Your task to perform on an android device: Check the news Image 0: 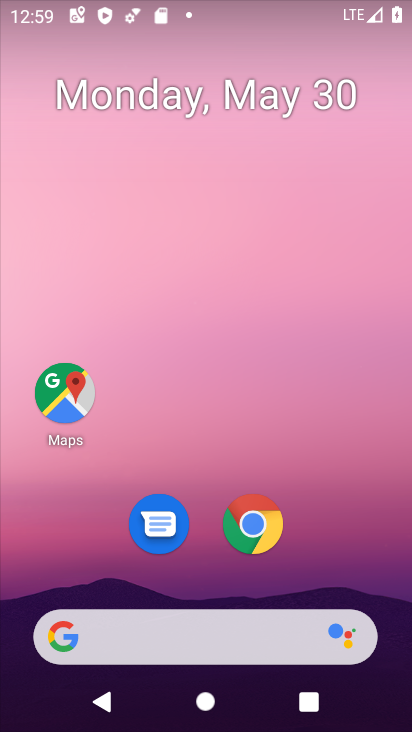
Step 0: click (227, 634)
Your task to perform on an android device: Check the news Image 1: 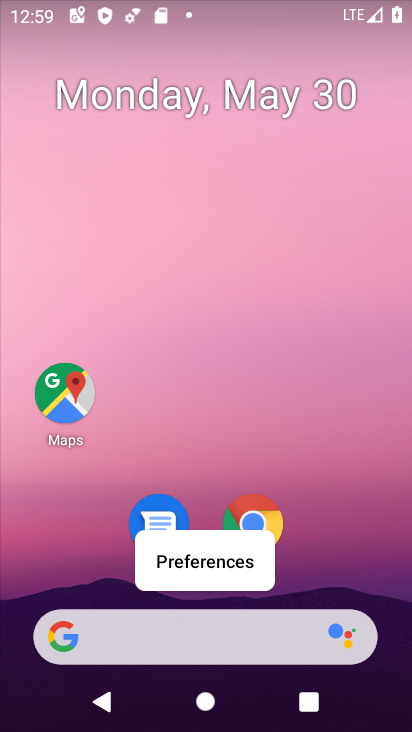
Step 1: click (180, 641)
Your task to perform on an android device: Check the news Image 2: 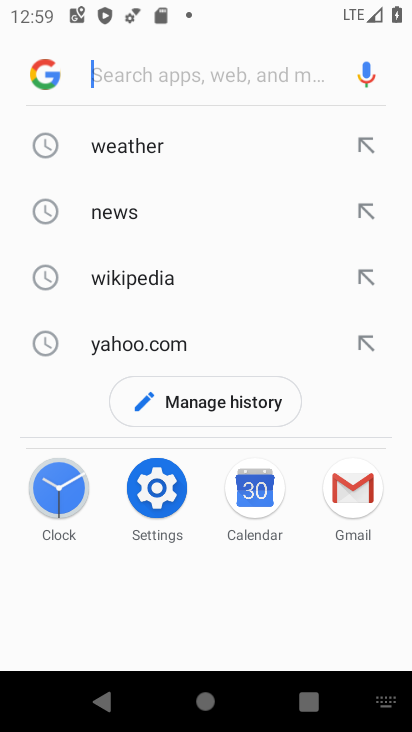
Step 2: click (117, 204)
Your task to perform on an android device: Check the news Image 3: 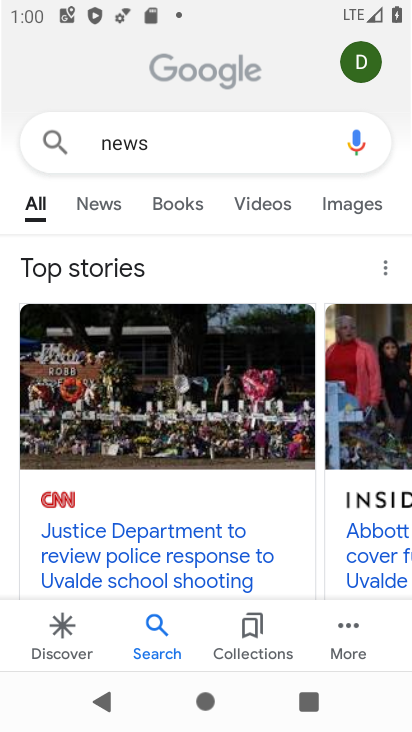
Step 3: click (106, 195)
Your task to perform on an android device: Check the news Image 4: 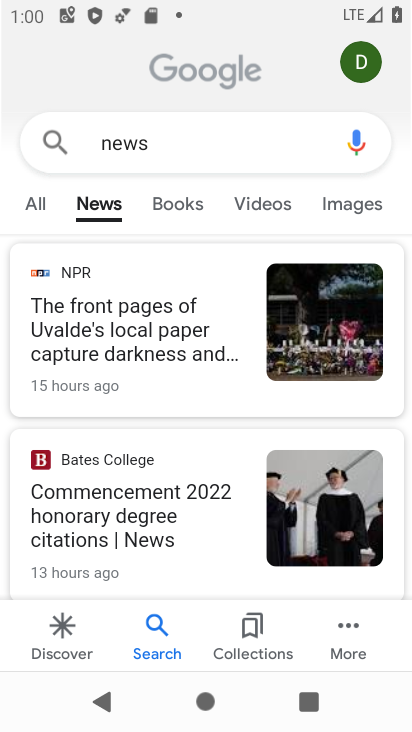
Step 4: task complete